Your task to perform on an android device: turn off priority inbox in the gmail app Image 0: 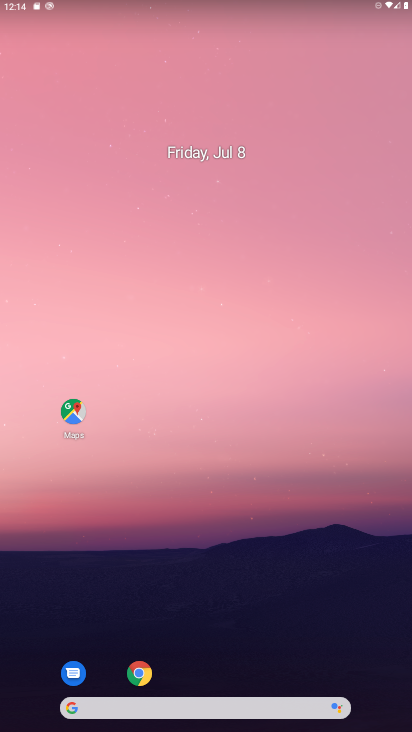
Step 0: drag from (377, 674) to (274, 153)
Your task to perform on an android device: turn off priority inbox in the gmail app Image 1: 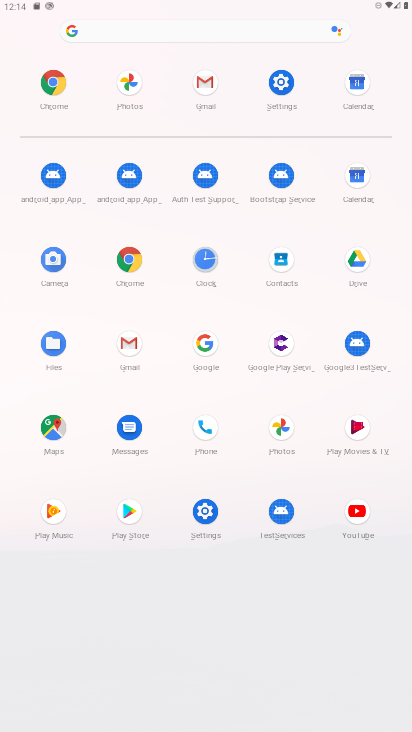
Step 1: click (212, 83)
Your task to perform on an android device: turn off priority inbox in the gmail app Image 2: 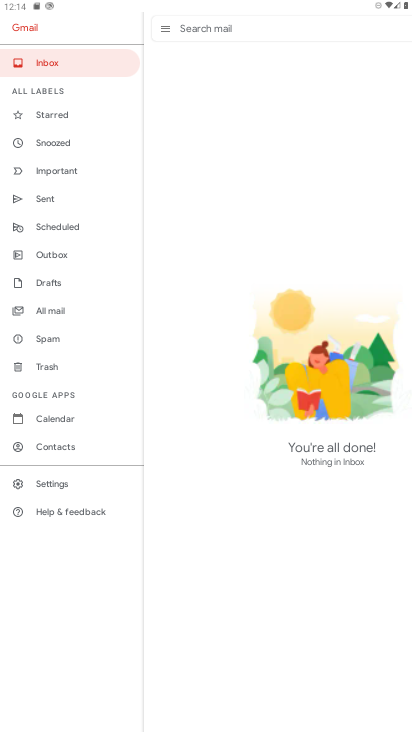
Step 2: click (162, 30)
Your task to perform on an android device: turn off priority inbox in the gmail app Image 3: 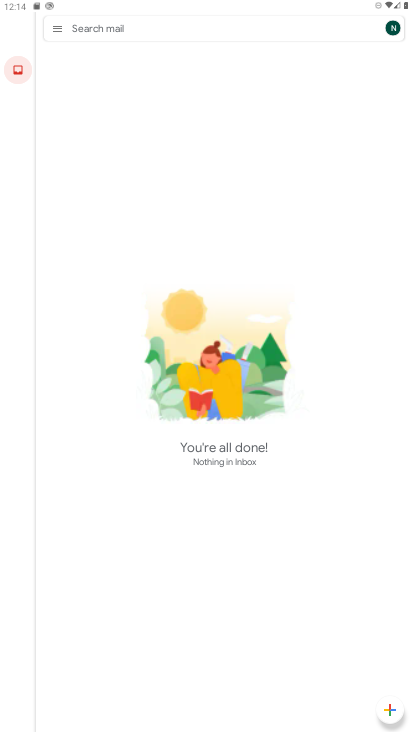
Step 3: click (57, 29)
Your task to perform on an android device: turn off priority inbox in the gmail app Image 4: 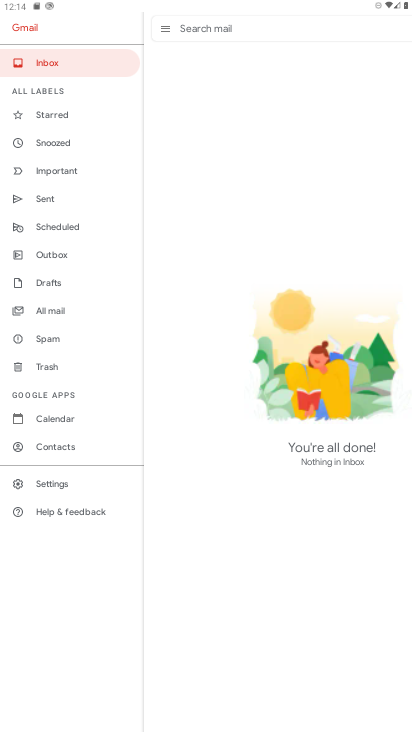
Step 4: click (51, 485)
Your task to perform on an android device: turn off priority inbox in the gmail app Image 5: 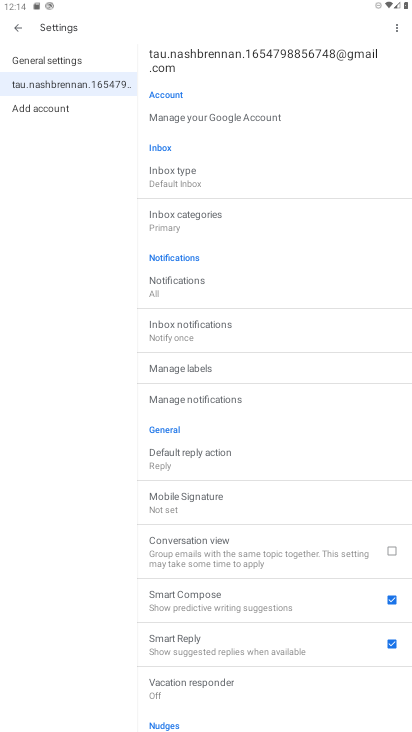
Step 5: click (173, 171)
Your task to perform on an android device: turn off priority inbox in the gmail app Image 6: 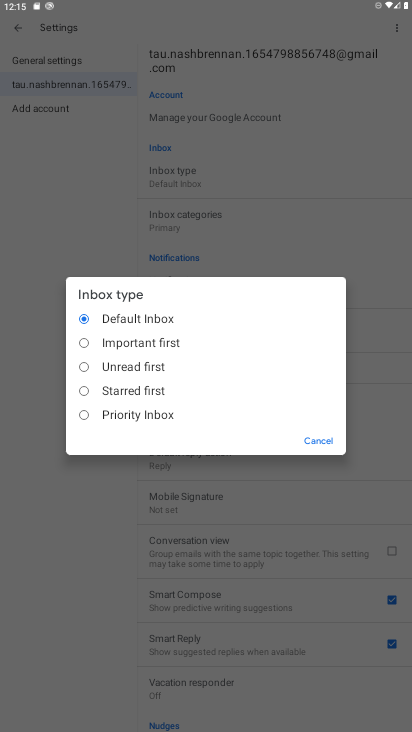
Step 6: task complete